Your task to perform on an android device: Is it going to rain this weekend? Image 0: 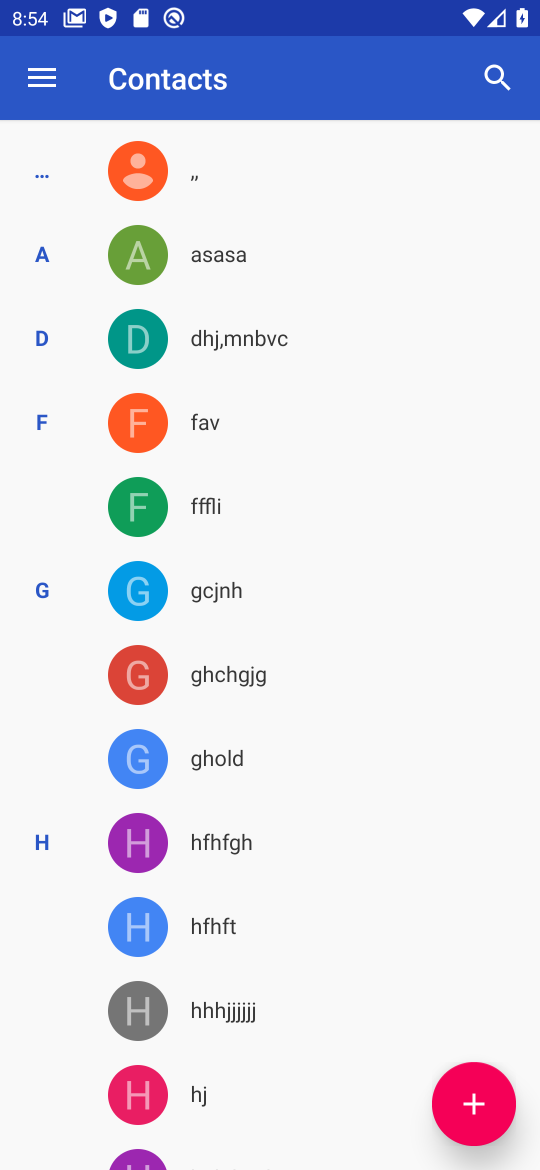
Step 0: press home button
Your task to perform on an android device: Is it going to rain this weekend? Image 1: 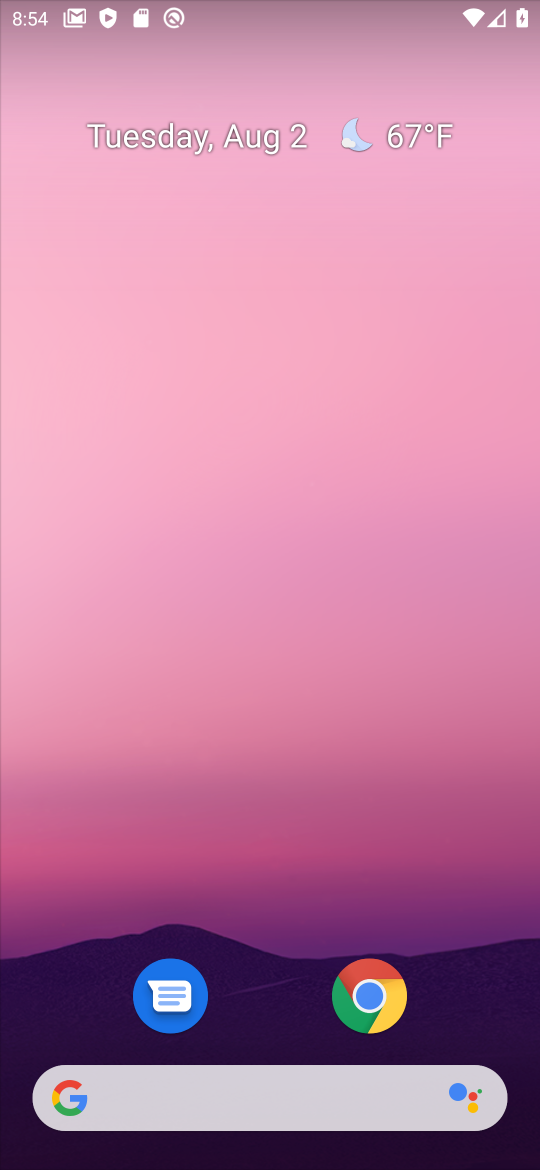
Step 1: drag from (297, 986) to (417, 39)
Your task to perform on an android device: Is it going to rain this weekend? Image 2: 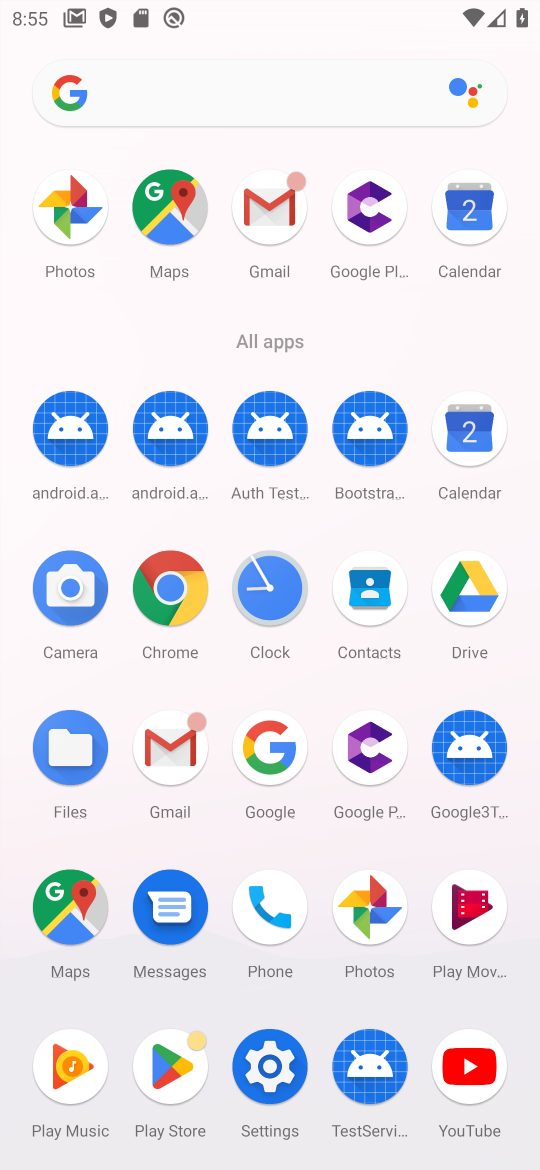
Step 2: click (162, 568)
Your task to perform on an android device: Is it going to rain this weekend? Image 3: 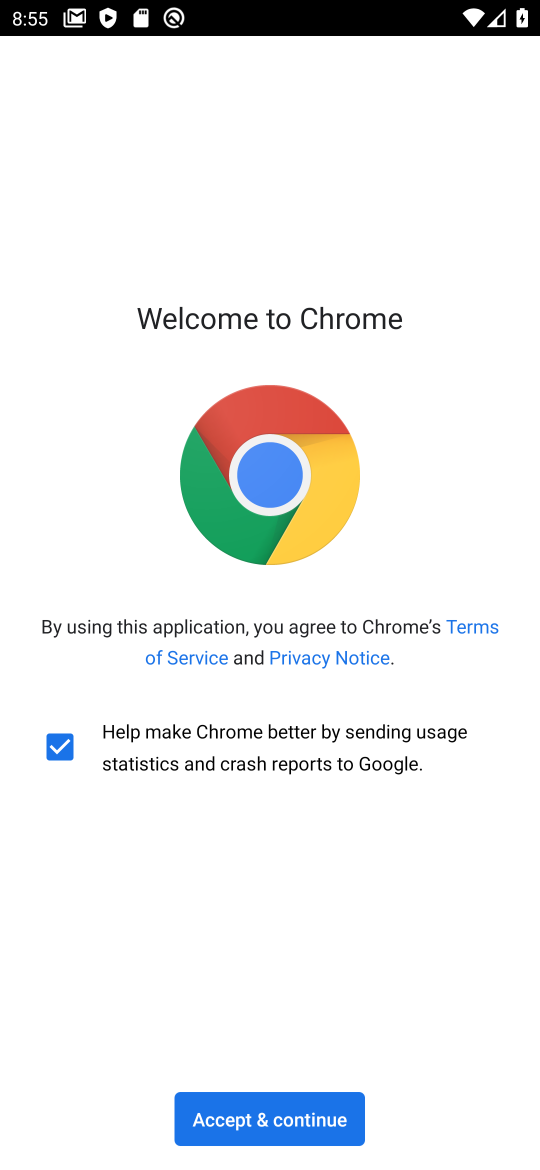
Step 3: click (253, 1109)
Your task to perform on an android device: Is it going to rain this weekend? Image 4: 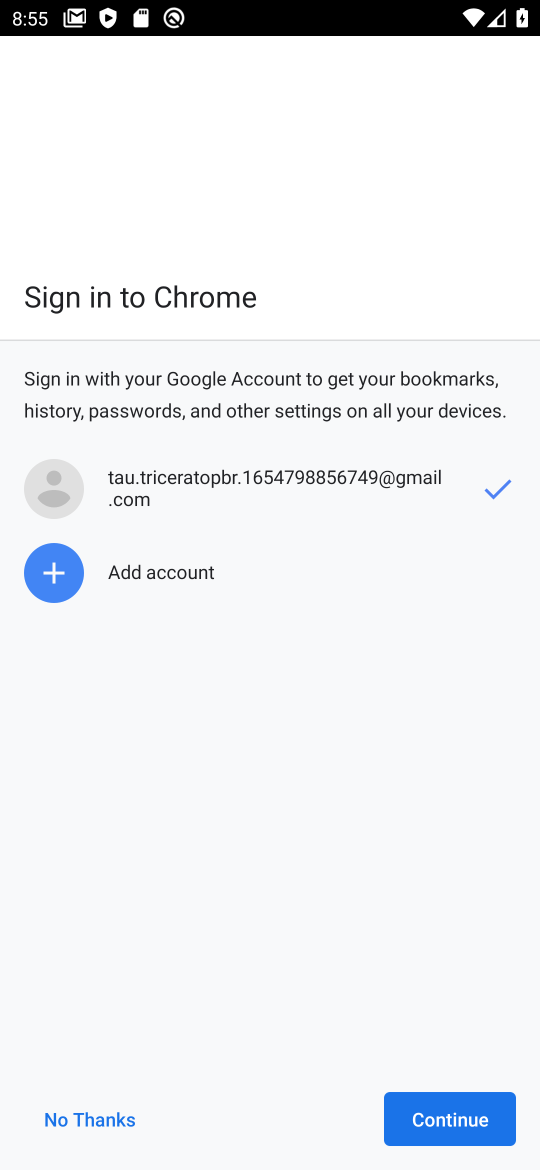
Step 4: click (432, 1118)
Your task to perform on an android device: Is it going to rain this weekend? Image 5: 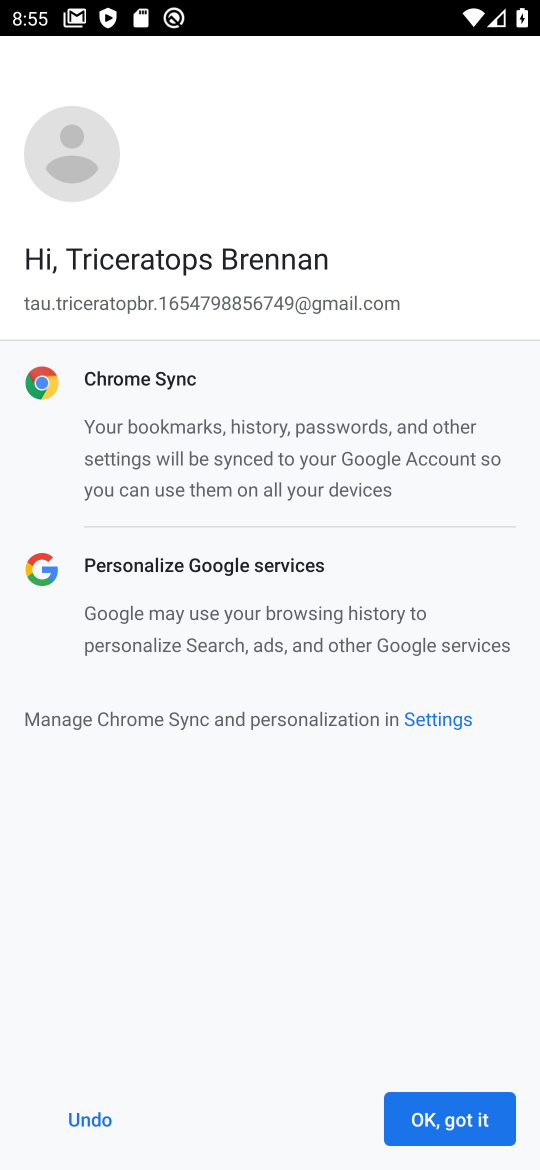
Step 5: click (402, 1109)
Your task to perform on an android device: Is it going to rain this weekend? Image 6: 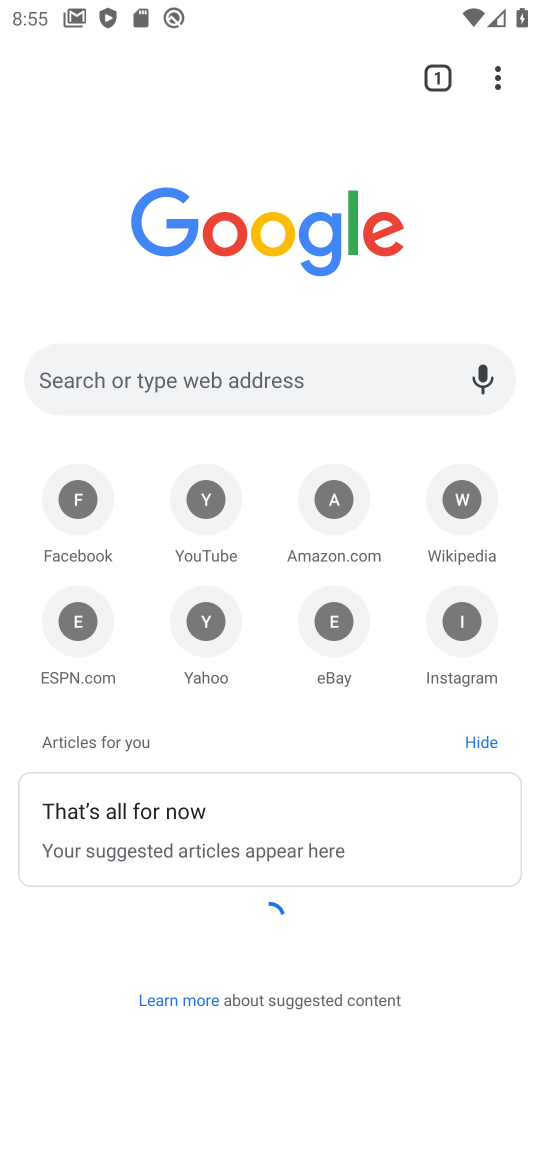
Step 6: click (226, 370)
Your task to perform on an android device: Is it going to rain this weekend? Image 7: 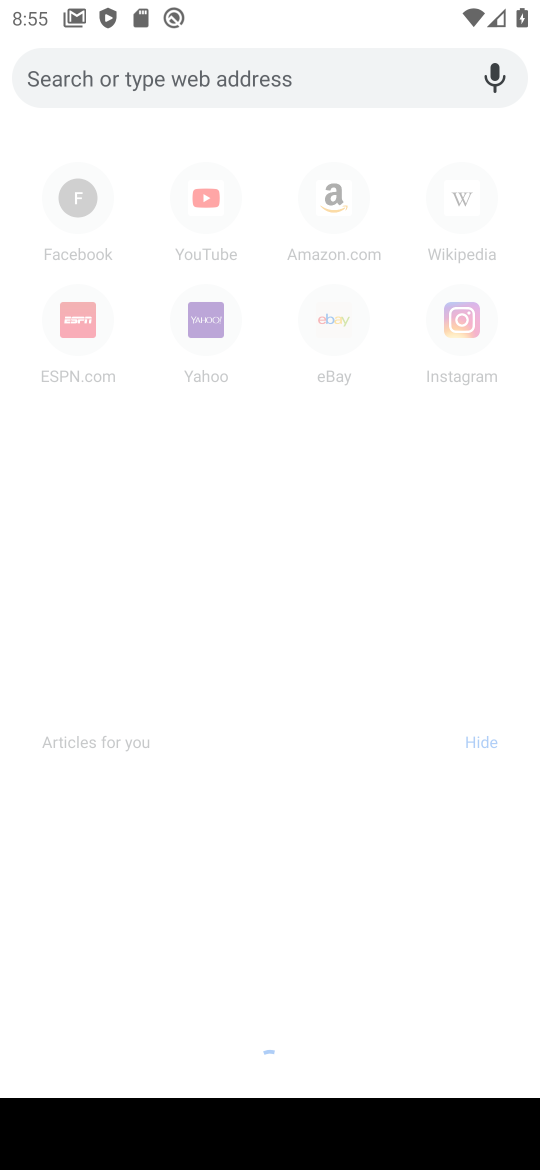
Step 7: type "Is it going to rain this weekend?"
Your task to perform on an android device: Is it going to rain this weekend? Image 8: 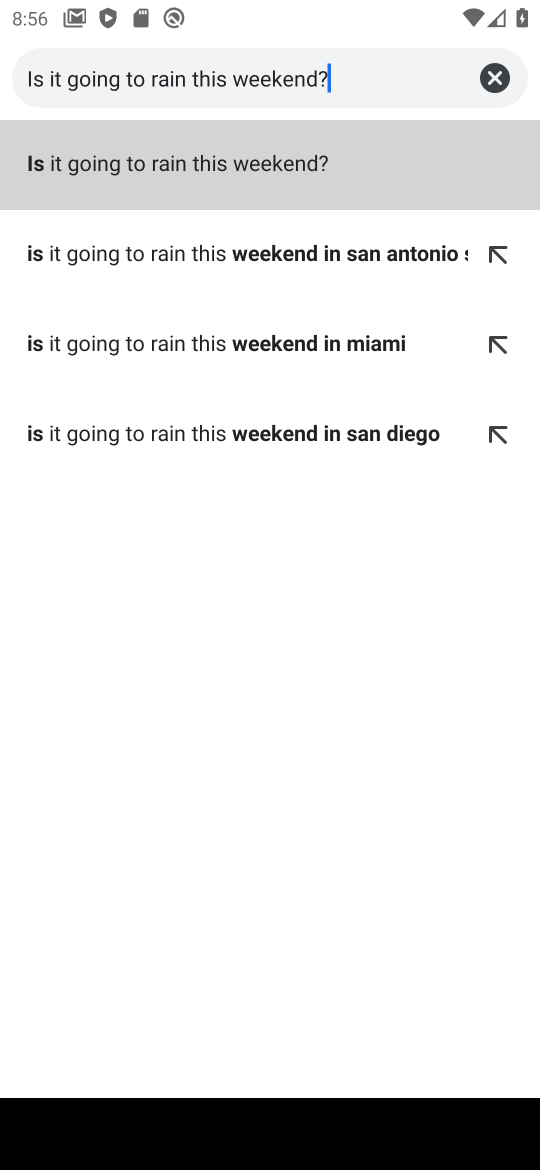
Step 8: click (241, 149)
Your task to perform on an android device: Is it going to rain this weekend? Image 9: 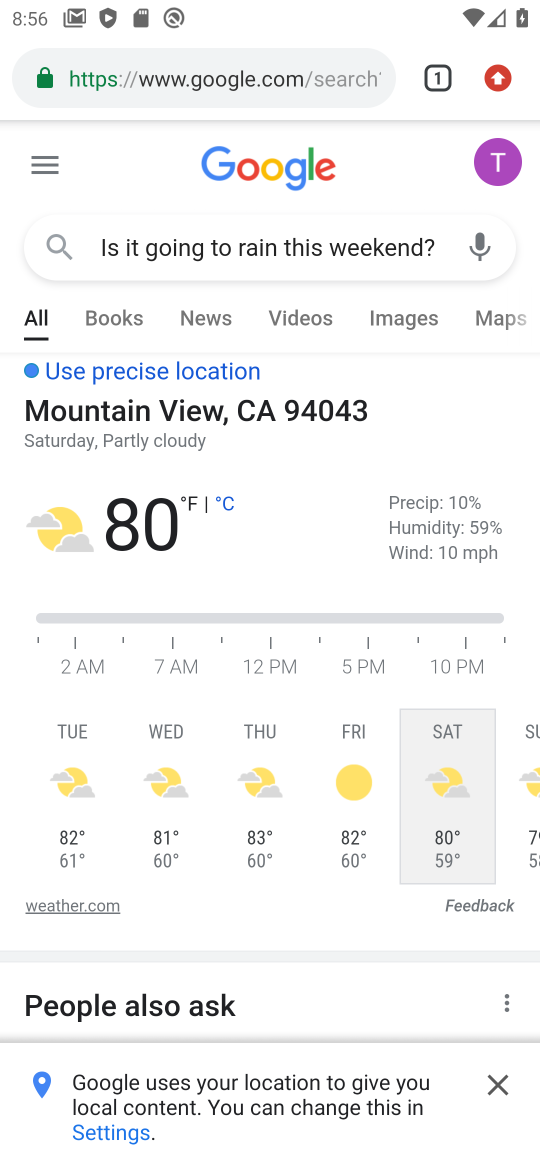
Step 9: task complete